Your task to perform on an android device: Go to notification settings Image 0: 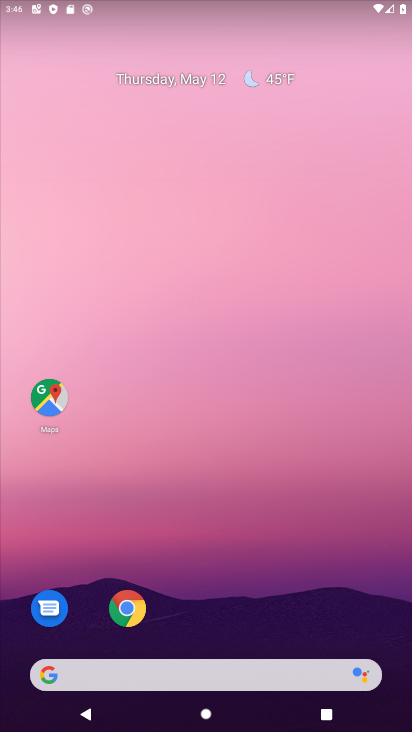
Step 0: drag from (195, 632) to (256, 198)
Your task to perform on an android device: Go to notification settings Image 1: 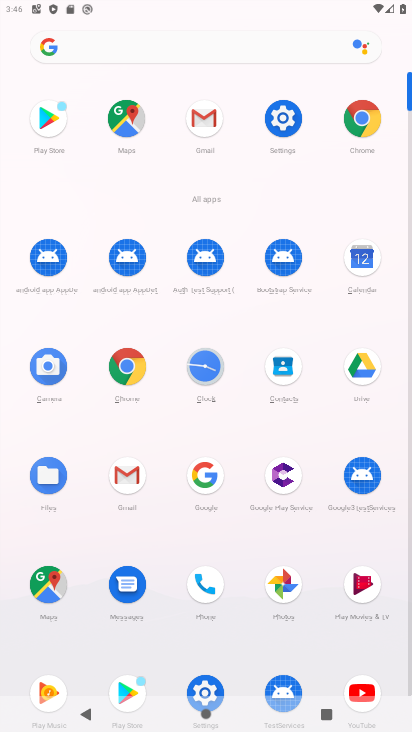
Step 1: click (300, 127)
Your task to perform on an android device: Go to notification settings Image 2: 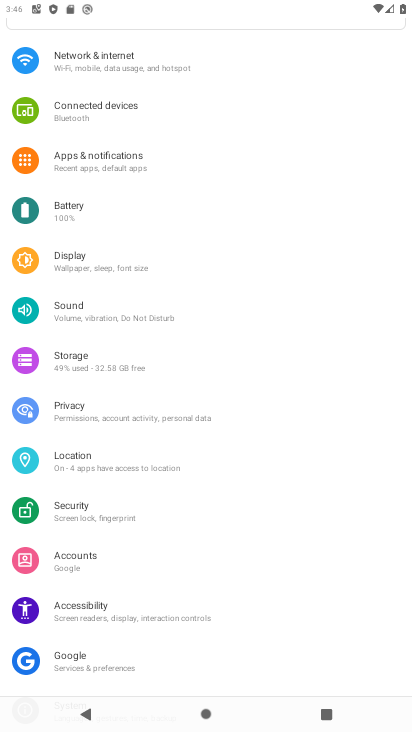
Step 2: click (164, 154)
Your task to perform on an android device: Go to notification settings Image 3: 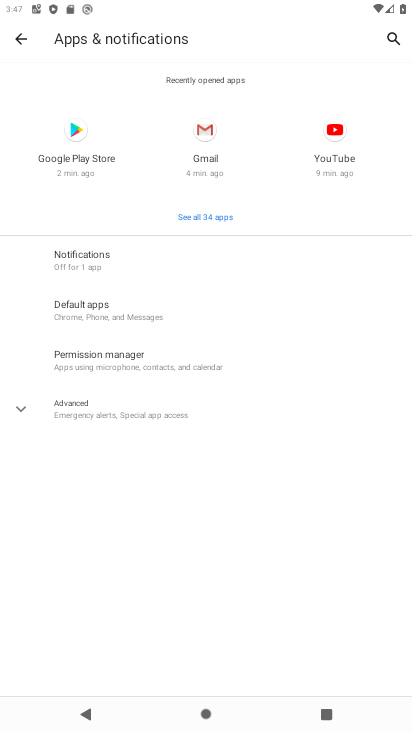
Step 3: task complete